Your task to perform on an android device: snooze an email in the gmail app Image 0: 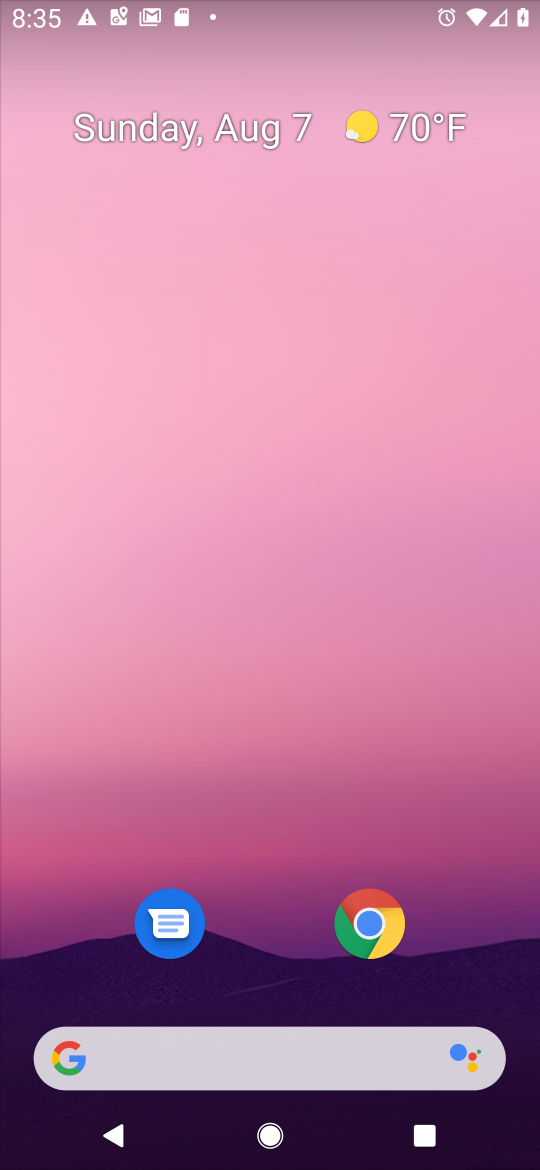
Step 0: drag from (507, 1009) to (244, 235)
Your task to perform on an android device: snooze an email in the gmail app Image 1: 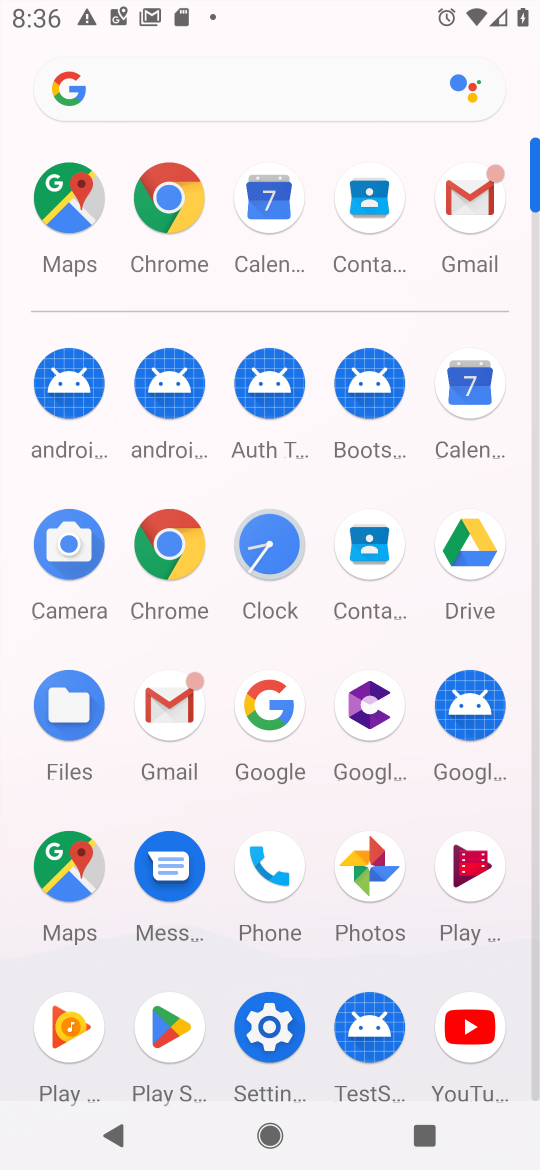
Step 1: click (147, 735)
Your task to perform on an android device: snooze an email in the gmail app Image 2: 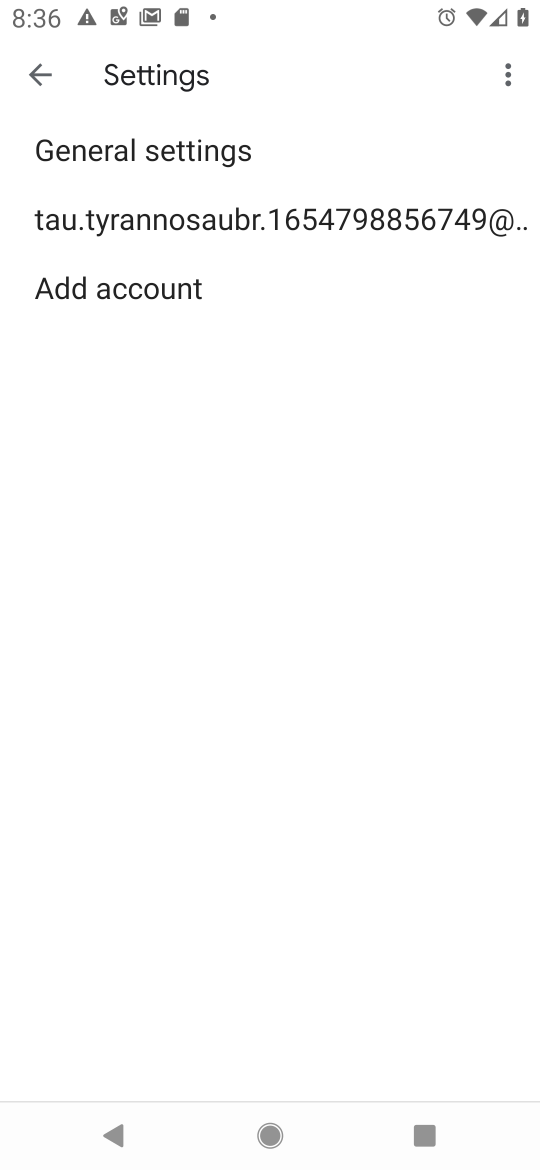
Step 2: press back button
Your task to perform on an android device: snooze an email in the gmail app Image 3: 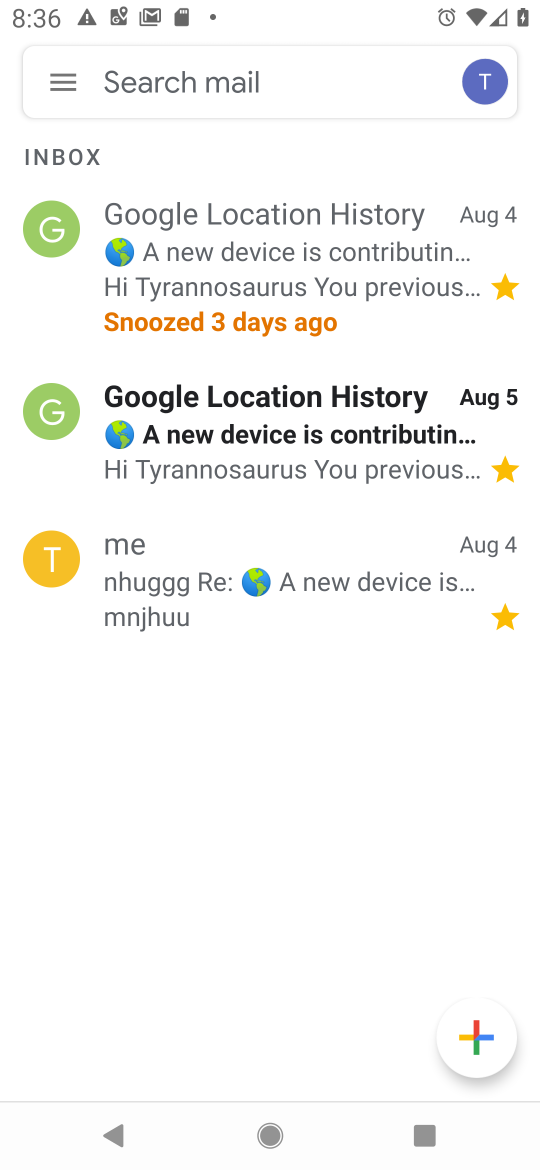
Step 3: click (215, 250)
Your task to perform on an android device: snooze an email in the gmail app Image 4: 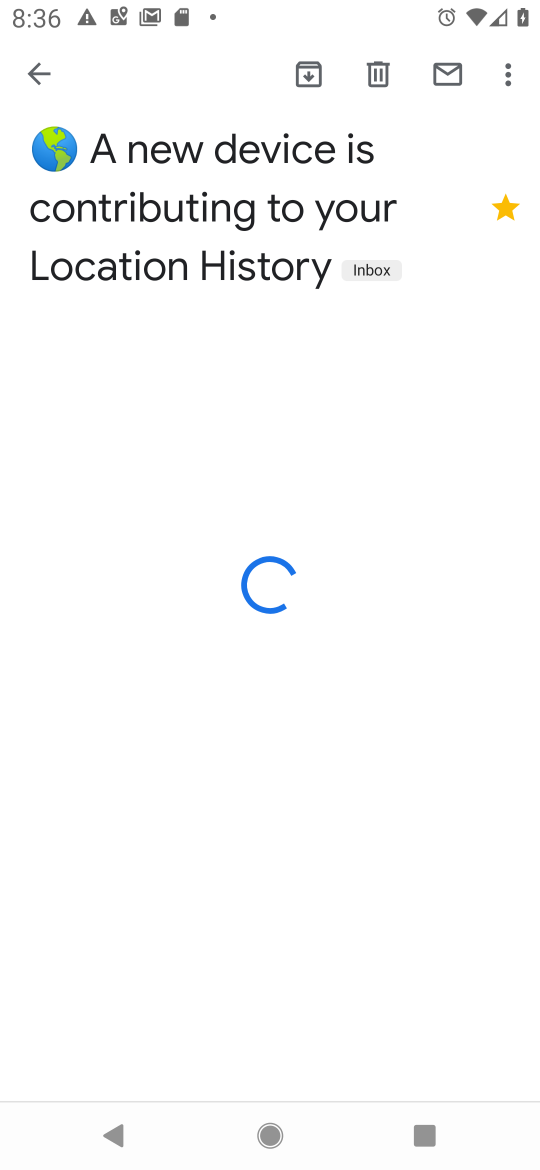
Step 4: click (507, 70)
Your task to perform on an android device: snooze an email in the gmail app Image 5: 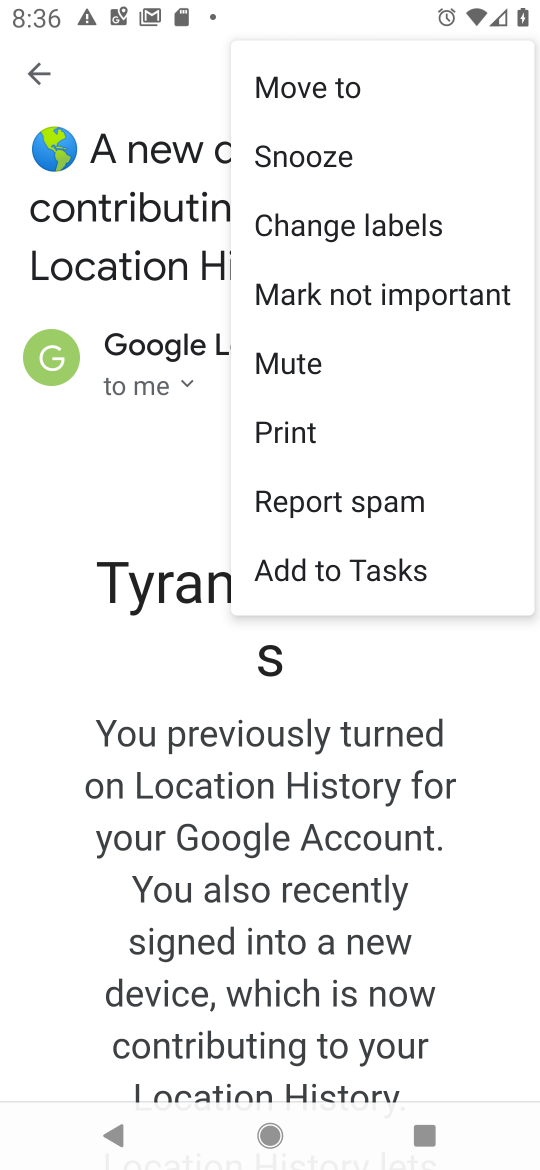
Step 5: click (309, 141)
Your task to perform on an android device: snooze an email in the gmail app Image 6: 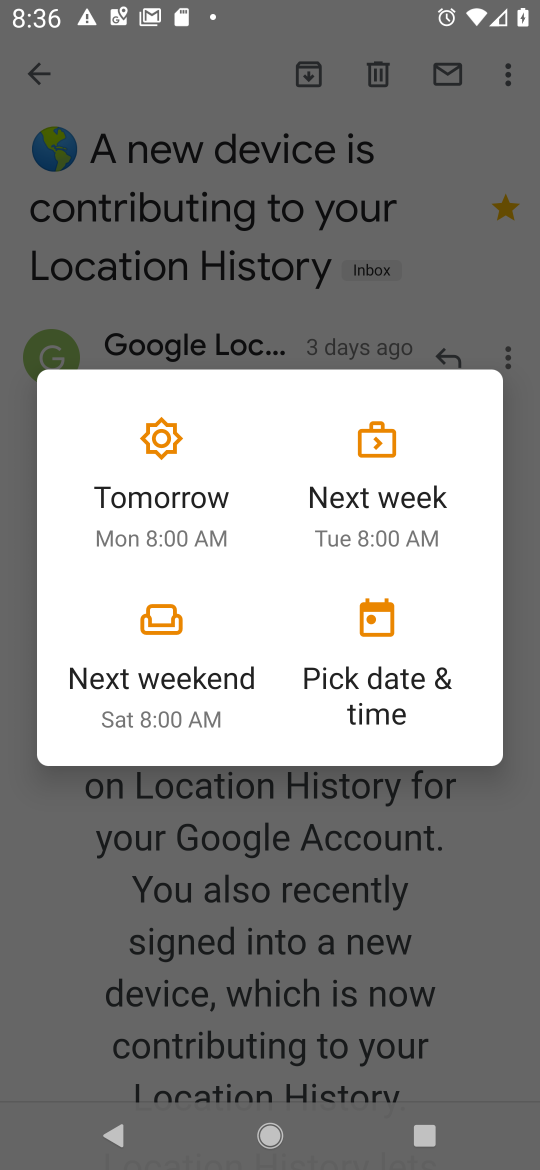
Step 6: click (374, 480)
Your task to perform on an android device: snooze an email in the gmail app Image 7: 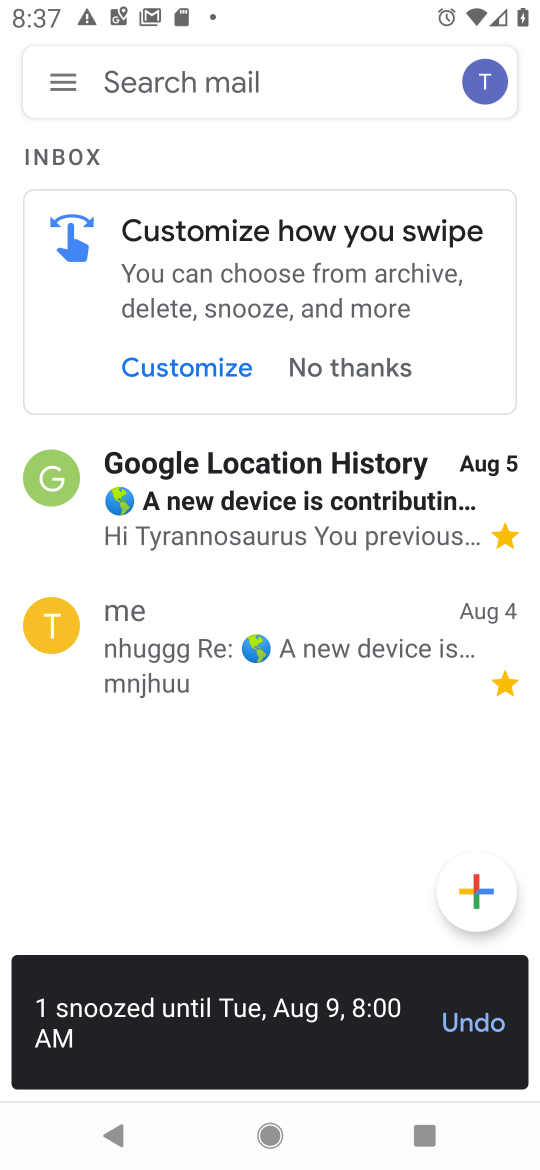
Step 7: task complete